Your task to perform on an android device: uninstall "Paramount+ | Peak Streaming" Image 0: 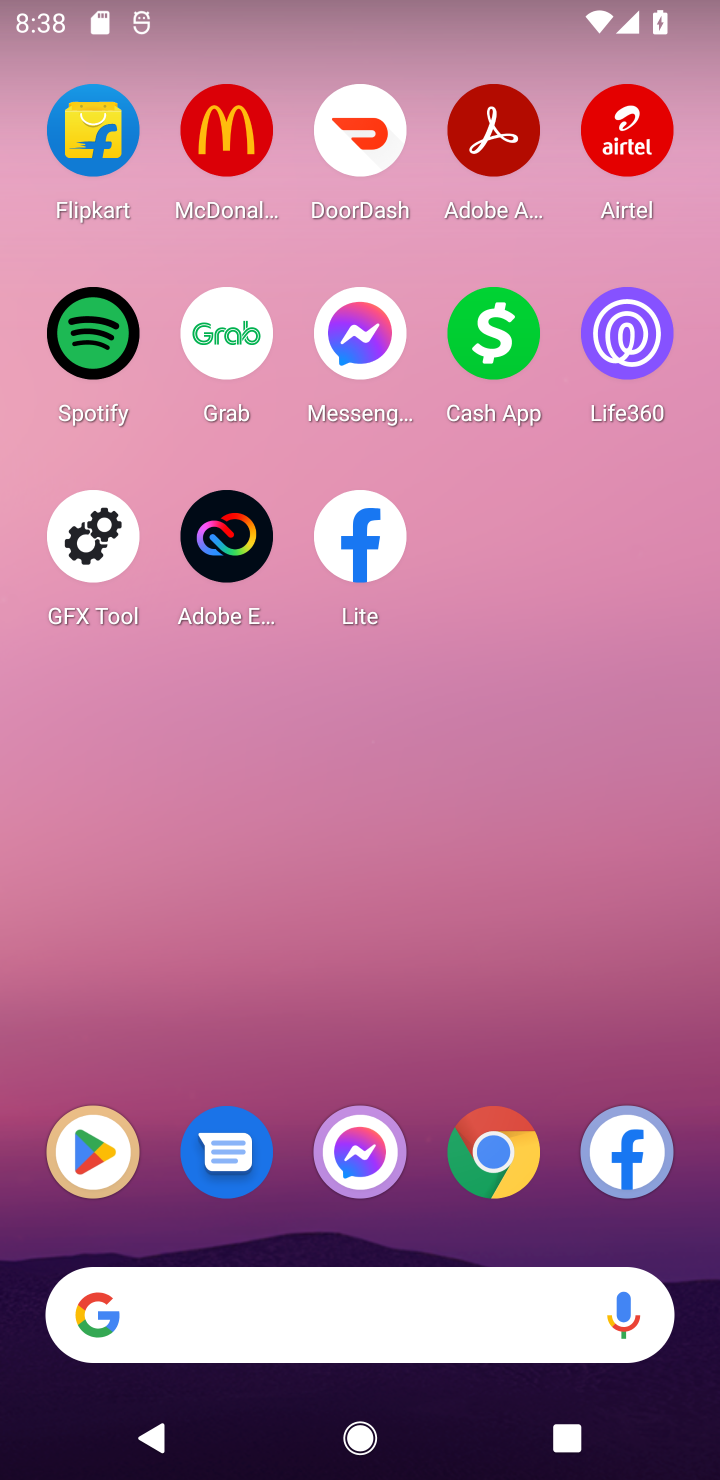
Step 0: click (107, 1156)
Your task to perform on an android device: uninstall "Paramount+ | Peak Streaming" Image 1: 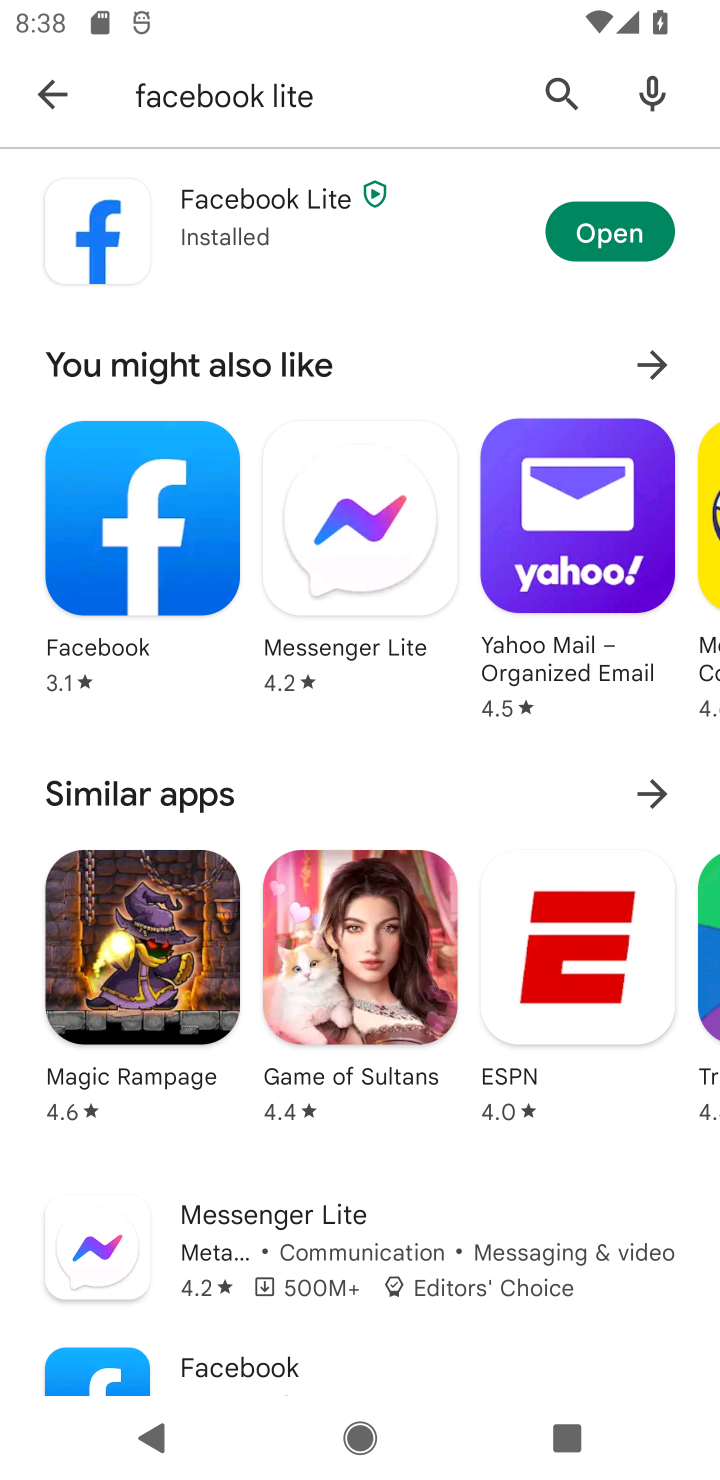
Step 1: click (38, 98)
Your task to perform on an android device: uninstall "Paramount+ | Peak Streaming" Image 2: 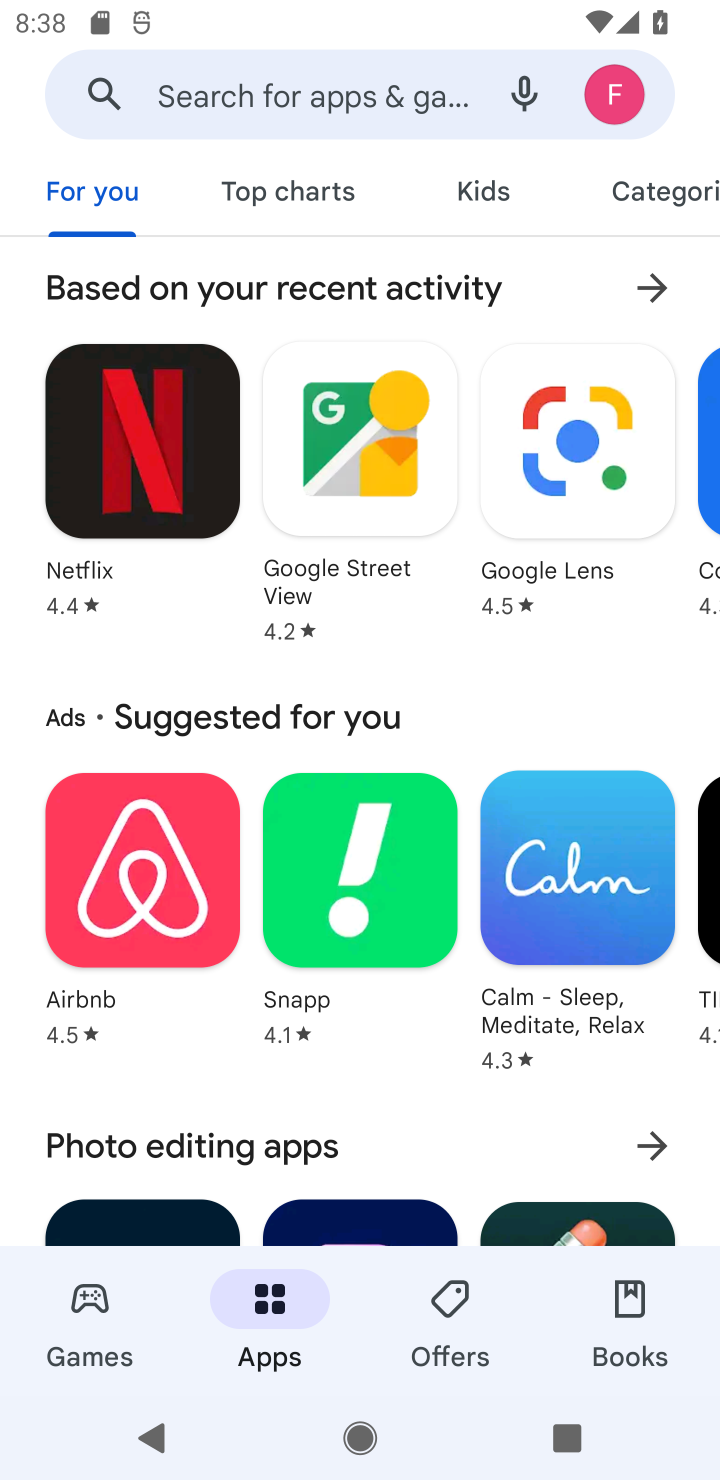
Step 2: click (248, 98)
Your task to perform on an android device: uninstall "Paramount+ | Peak Streaming" Image 3: 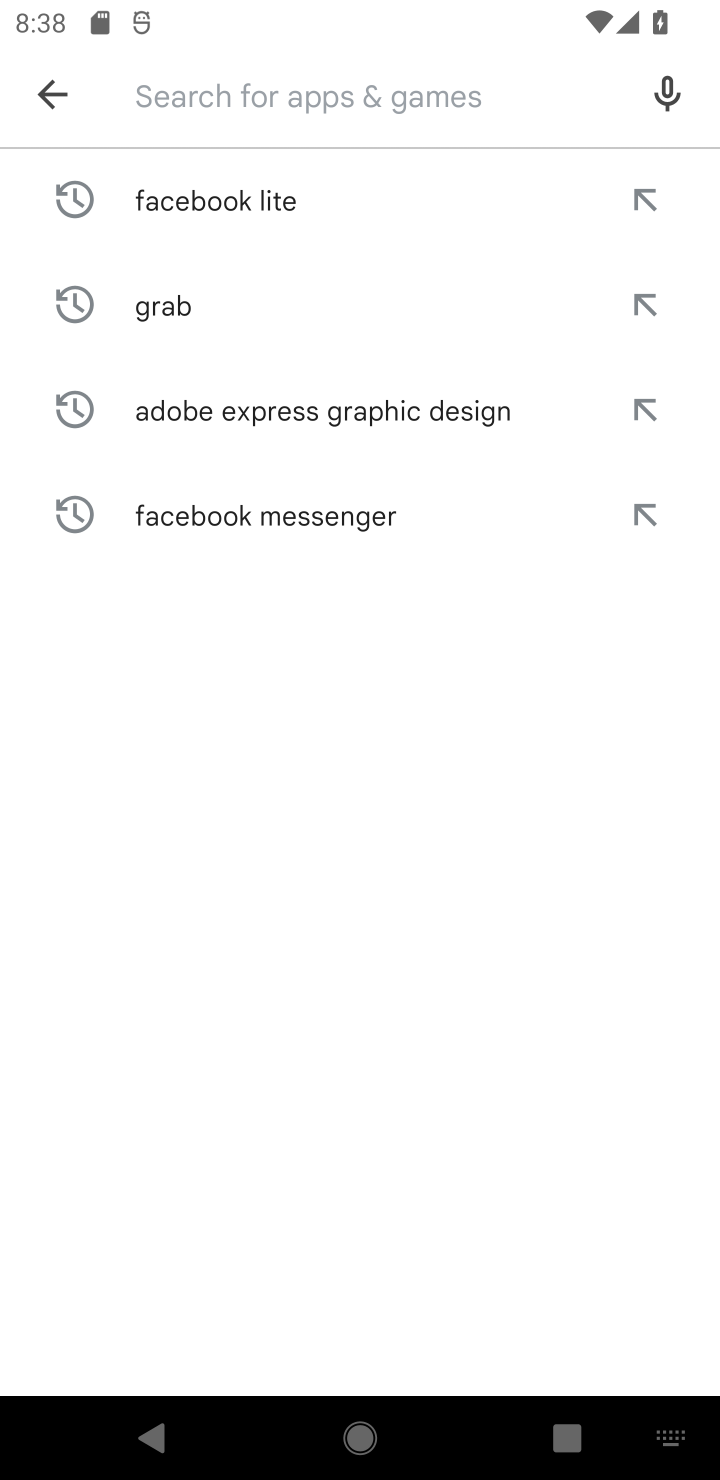
Step 3: type "Paramount+ | Peak Streaming"
Your task to perform on an android device: uninstall "Paramount+ | Peak Streaming" Image 4: 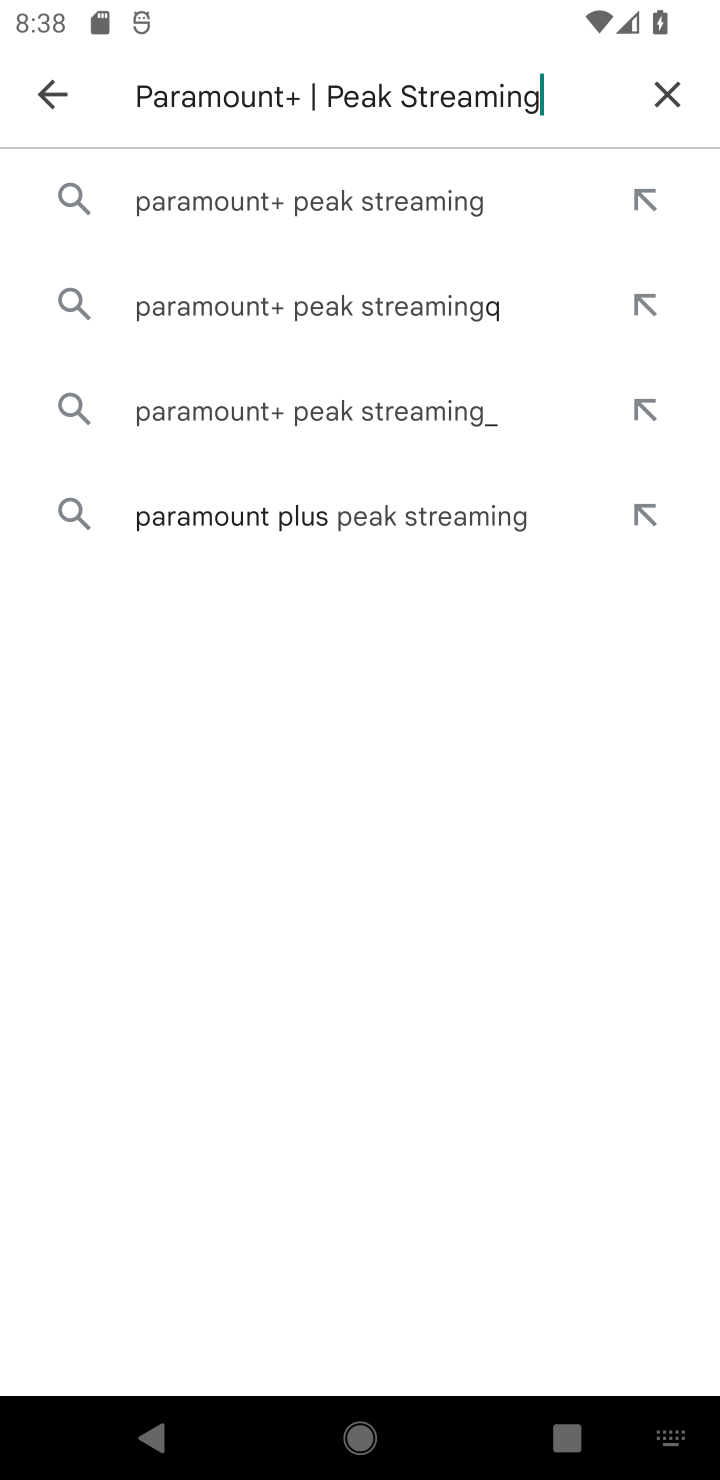
Step 4: click (393, 191)
Your task to perform on an android device: uninstall "Paramount+ | Peak Streaming" Image 5: 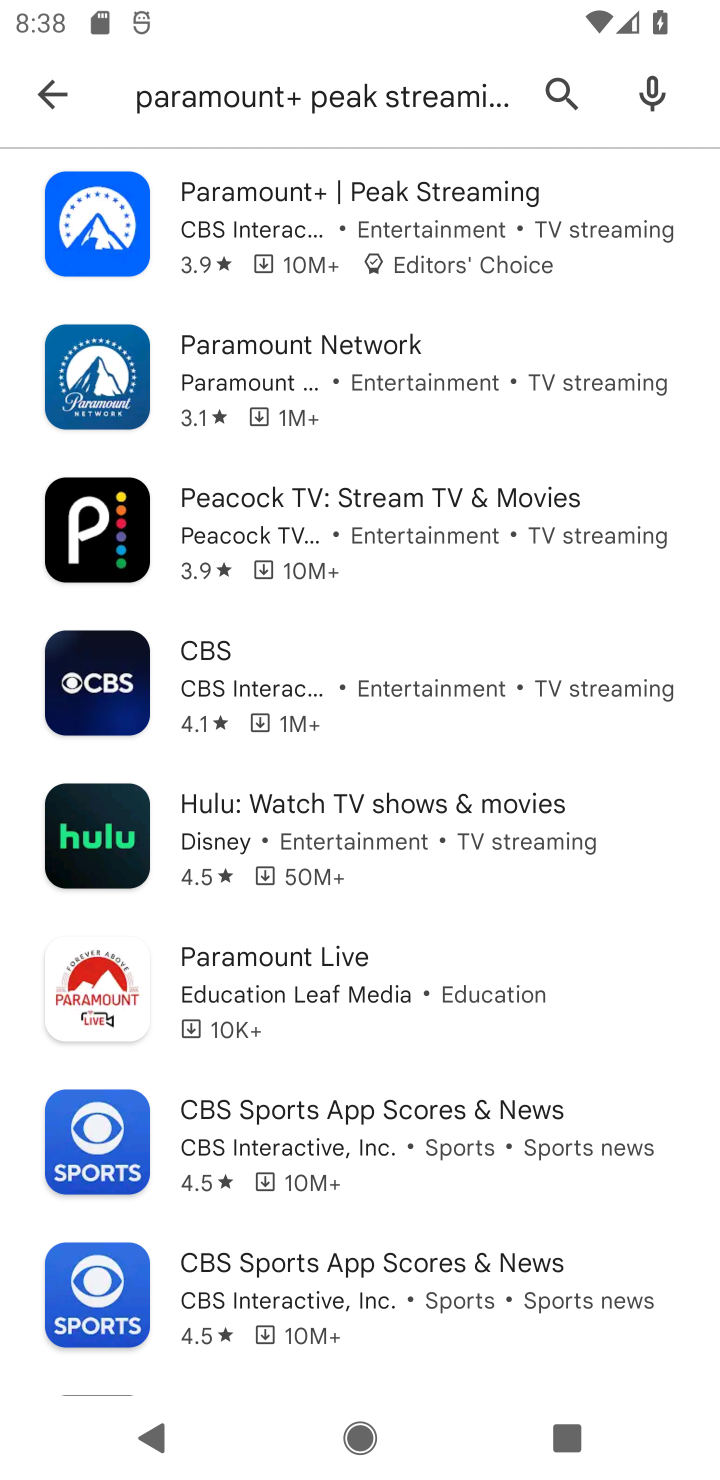
Step 5: click (283, 231)
Your task to perform on an android device: uninstall "Paramount+ | Peak Streaming" Image 6: 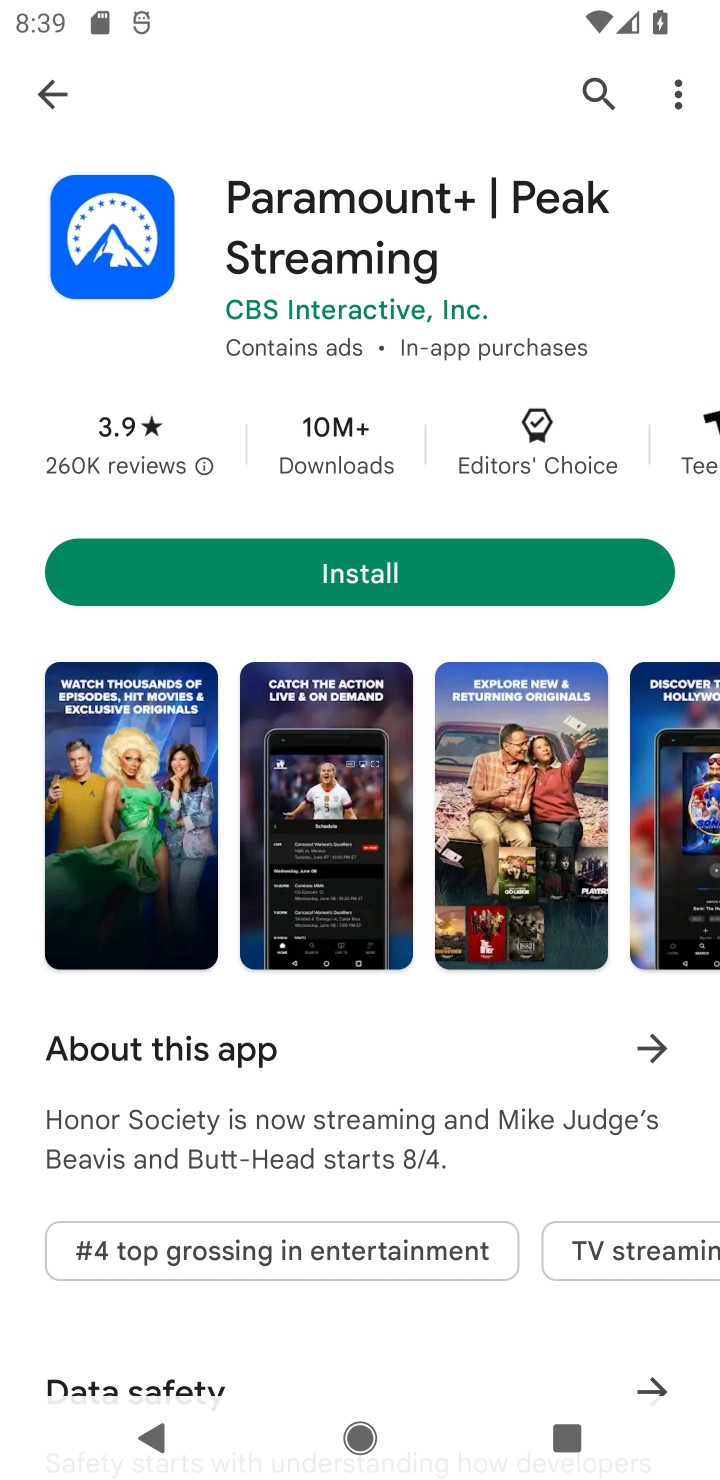
Step 6: click (380, 582)
Your task to perform on an android device: uninstall "Paramount+ | Peak Streaming" Image 7: 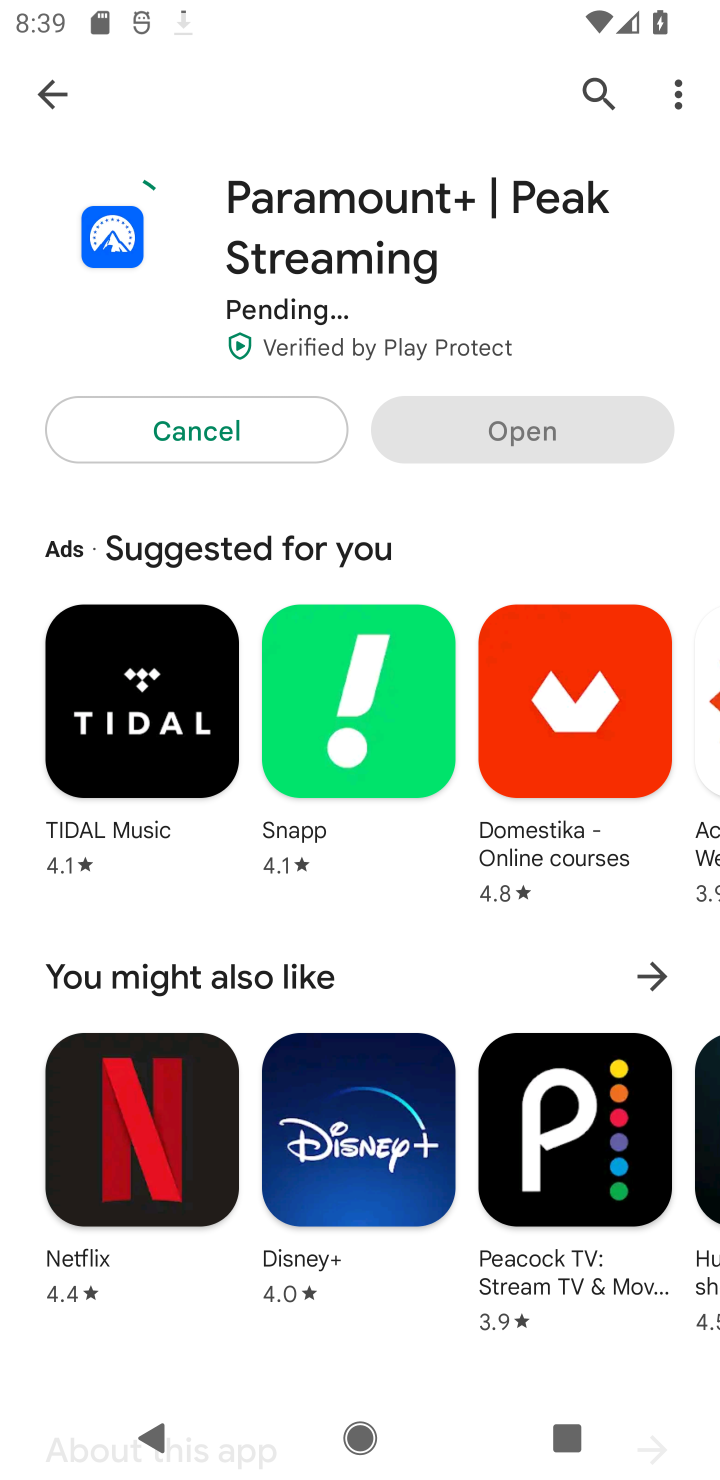
Step 7: task complete